Your task to perform on an android device: turn on the 12-hour format for clock Image 0: 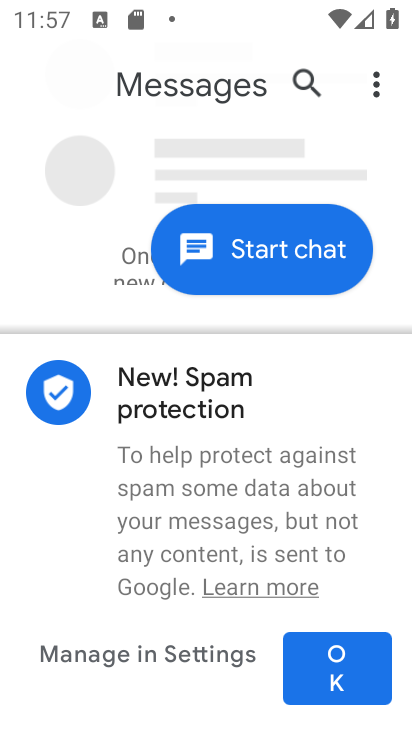
Step 0: press home button
Your task to perform on an android device: turn on the 12-hour format for clock Image 1: 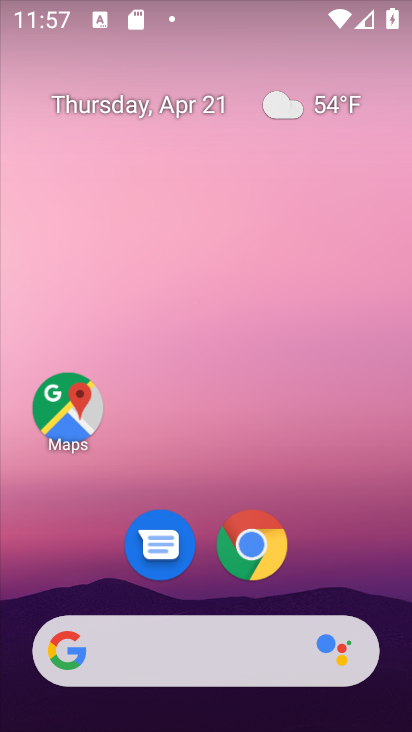
Step 1: drag from (325, 489) to (306, 191)
Your task to perform on an android device: turn on the 12-hour format for clock Image 2: 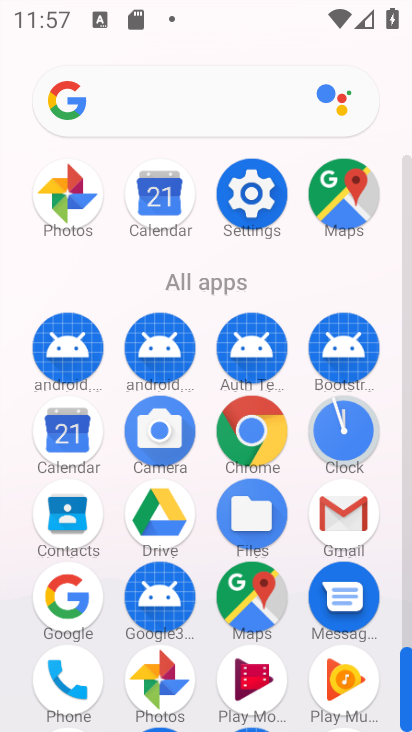
Step 2: click (364, 431)
Your task to perform on an android device: turn on the 12-hour format for clock Image 3: 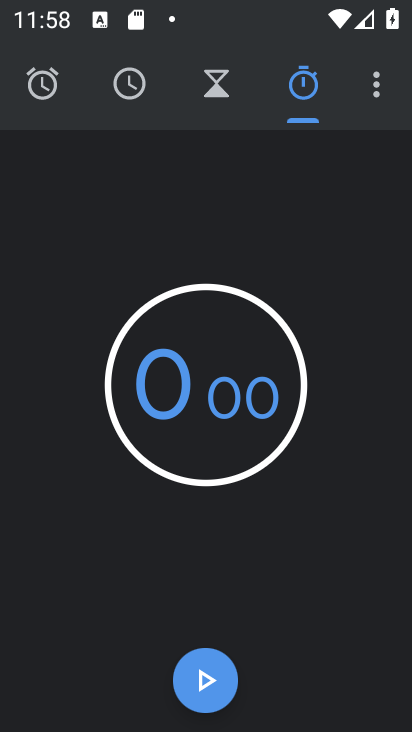
Step 3: click (371, 95)
Your task to perform on an android device: turn on the 12-hour format for clock Image 4: 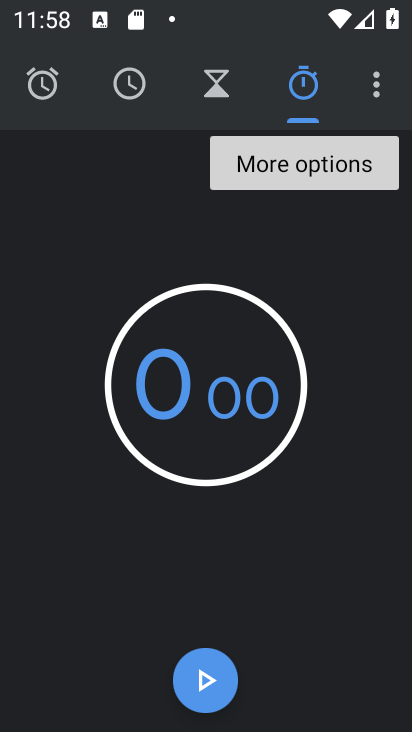
Step 4: click (382, 94)
Your task to perform on an android device: turn on the 12-hour format for clock Image 5: 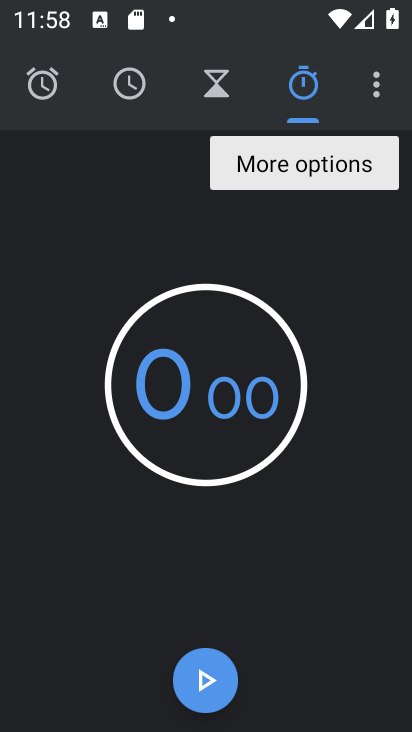
Step 5: click (379, 94)
Your task to perform on an android device: turn on the 12-hour format for clock Image 6: 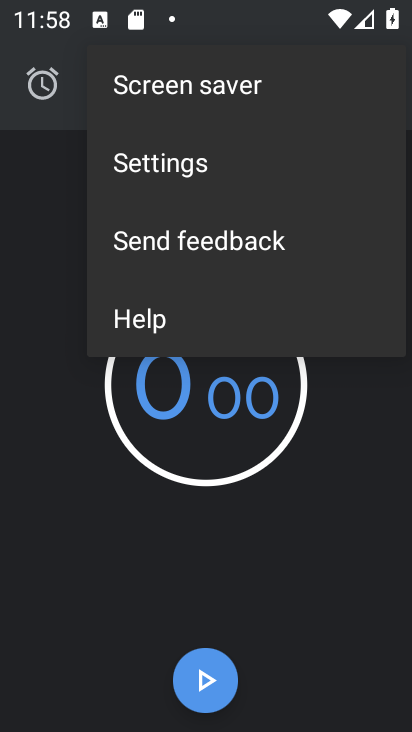
Step 6: click (216, 172)
Your task to perform on an android device: turn on the 12-hour format for clock Image 7: 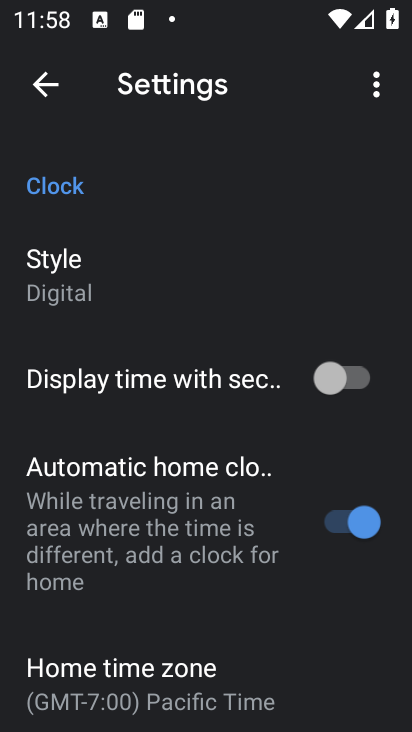
Step 7: drag from (147, 524) to (150, 214)
Your task to perform on an android device: turn on the 12-hour format for clock Image 8: 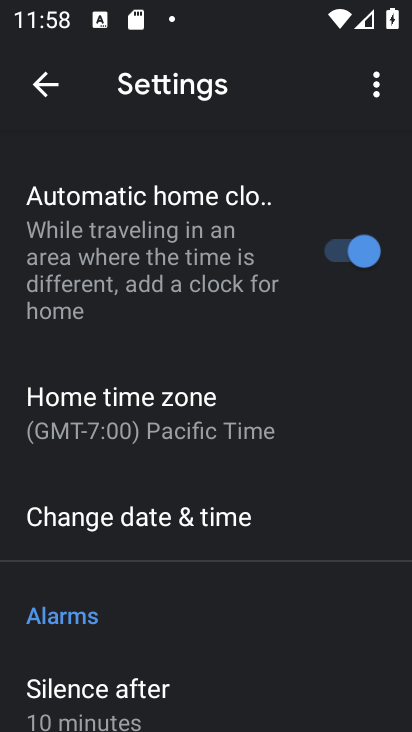
Step 8: click (177, 513)
Your task to perform on an android device: turn on the 12-hour format for clock Image 9: 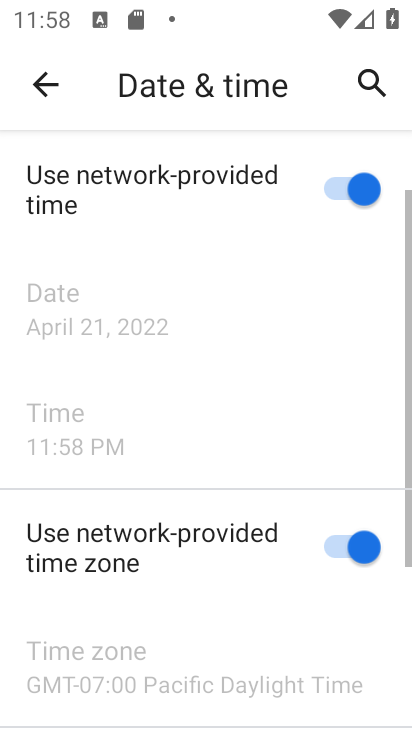
Step 9: task complete